Your task to perform on an android device: turn off airplane mode Image 0: 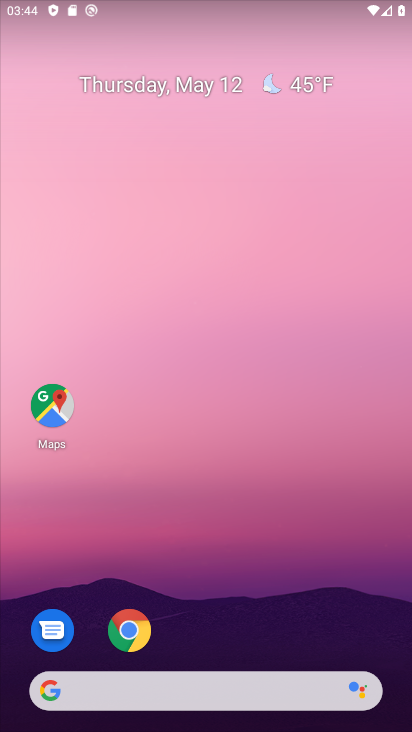
Step 0: drag from (233, 511) to (340, 5)
Your task to perform on an android device: turn off airplane mode Image 1: 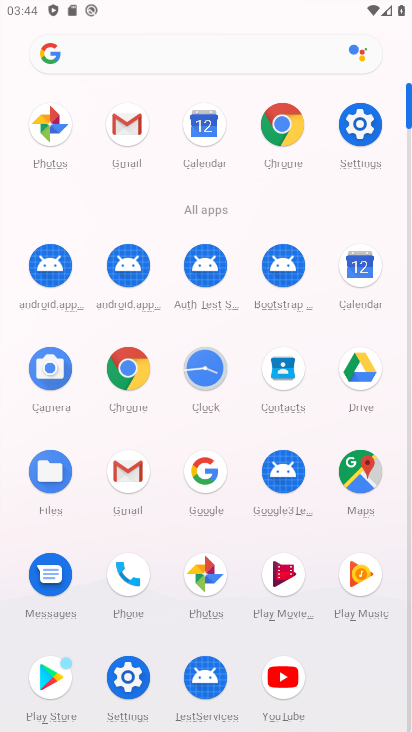
Step 1: click (114, 662)
Your task to perform on an android device: turn off airplane mode Image 2: 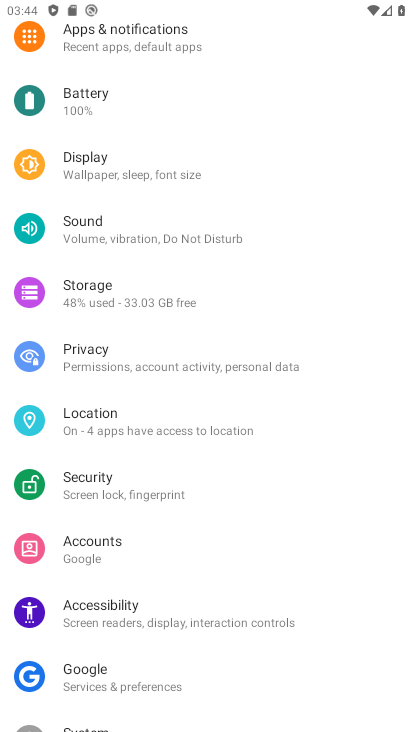
Step 2: drag from (220, 178) to (220, 731)
Your task to perform on an android device: turn off airplane mode Image 3: 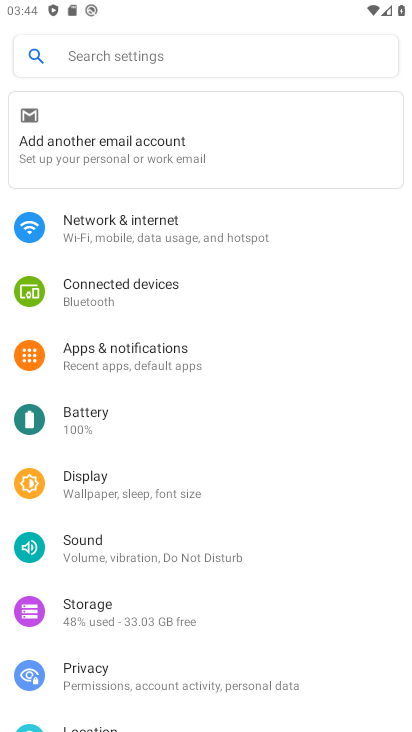
Step 3: click (195, 238)
Your task to perform on an android device: turn off airplane mode Image 4: 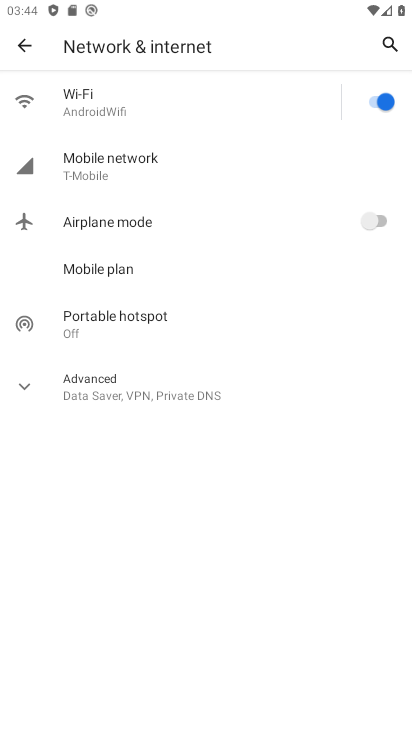
Step 4: click (144, 211)
Your task to perform on an android device: turn off airplane mode Image 5: 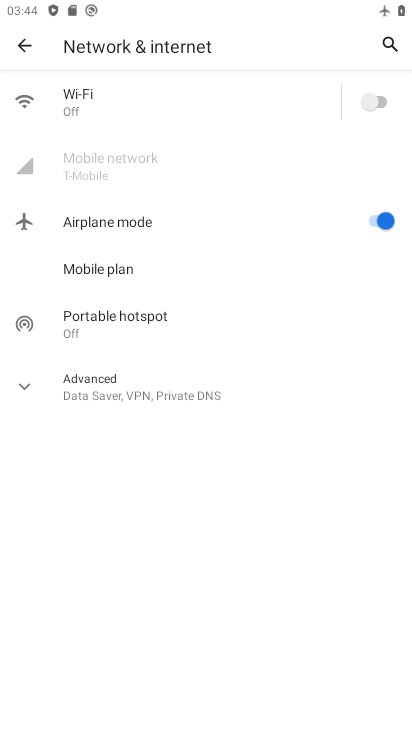
Step 5: task complete